Your task to perform on an android device: open chrome privacy settings Image 0: 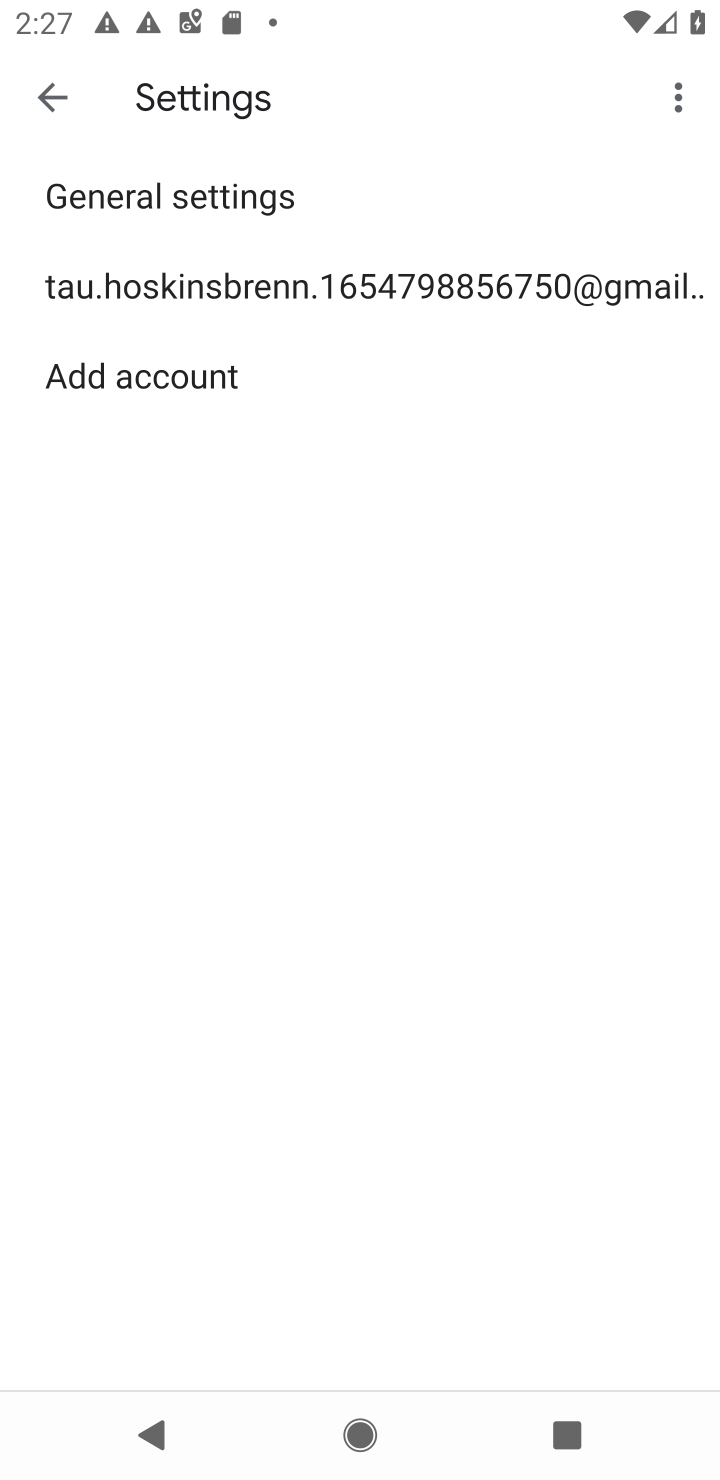
Step 0: press home button
Your task to perform on an android device: open chrome privacy settings Image 1: 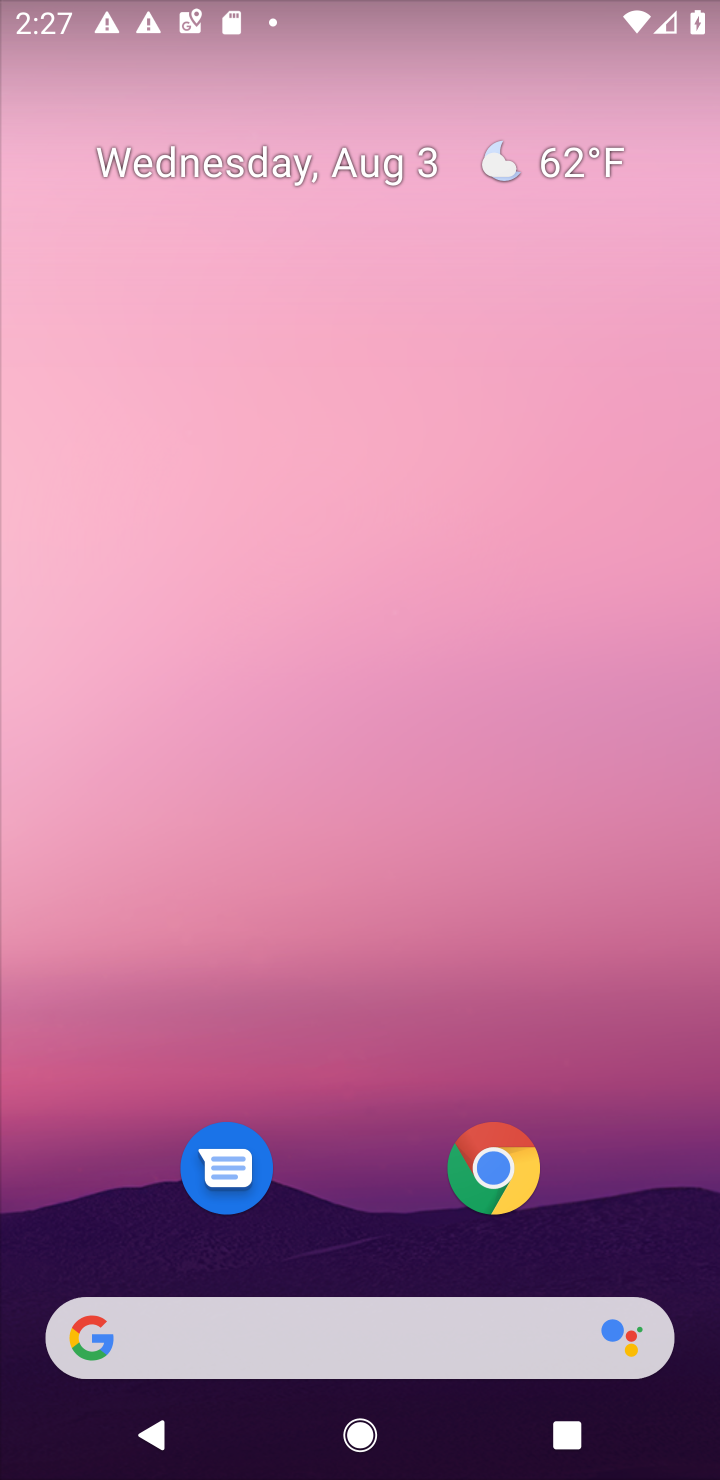
Step 1: click (495, 1169)
Your task to perform on an android device: open chrome privacy settings Image 2: 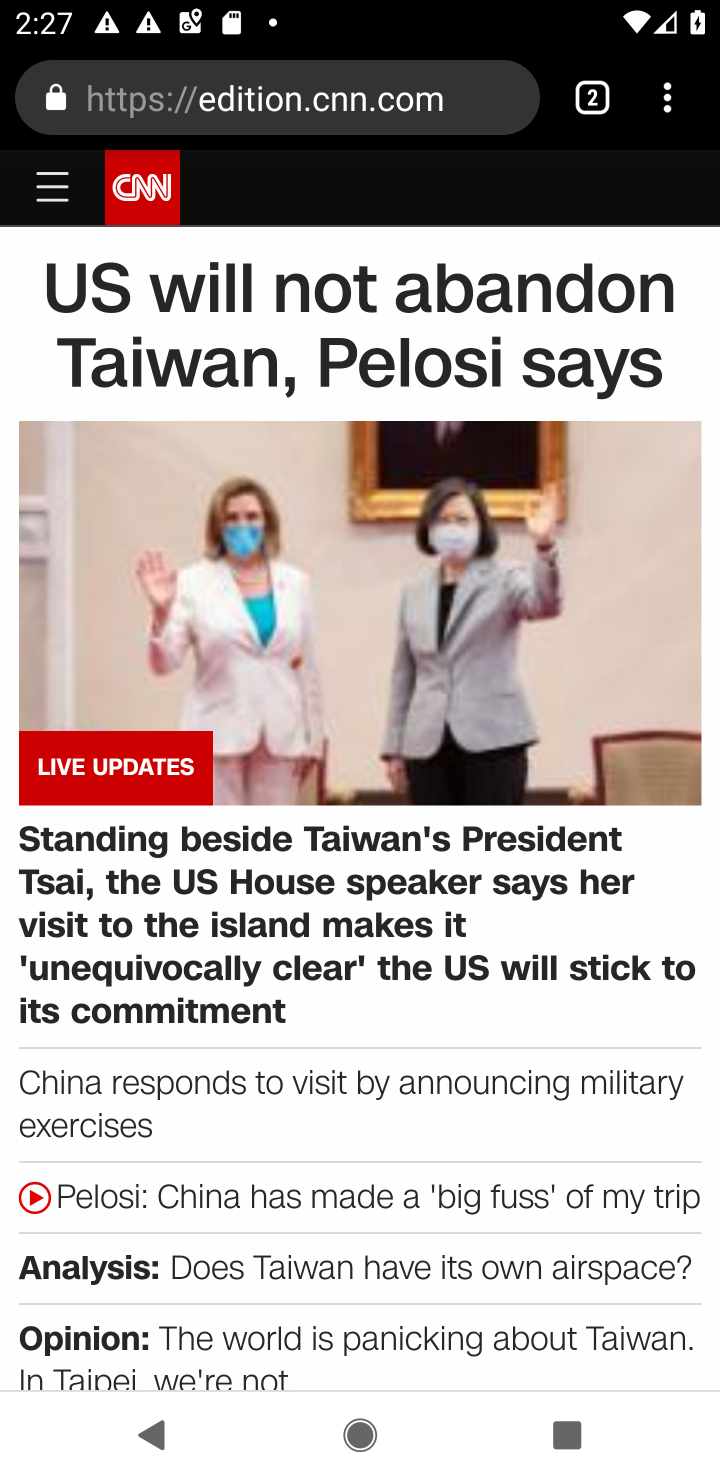
Step 2: click (666, 117)
Your task to perform on an android device: open chrome privacy settings Image 3: 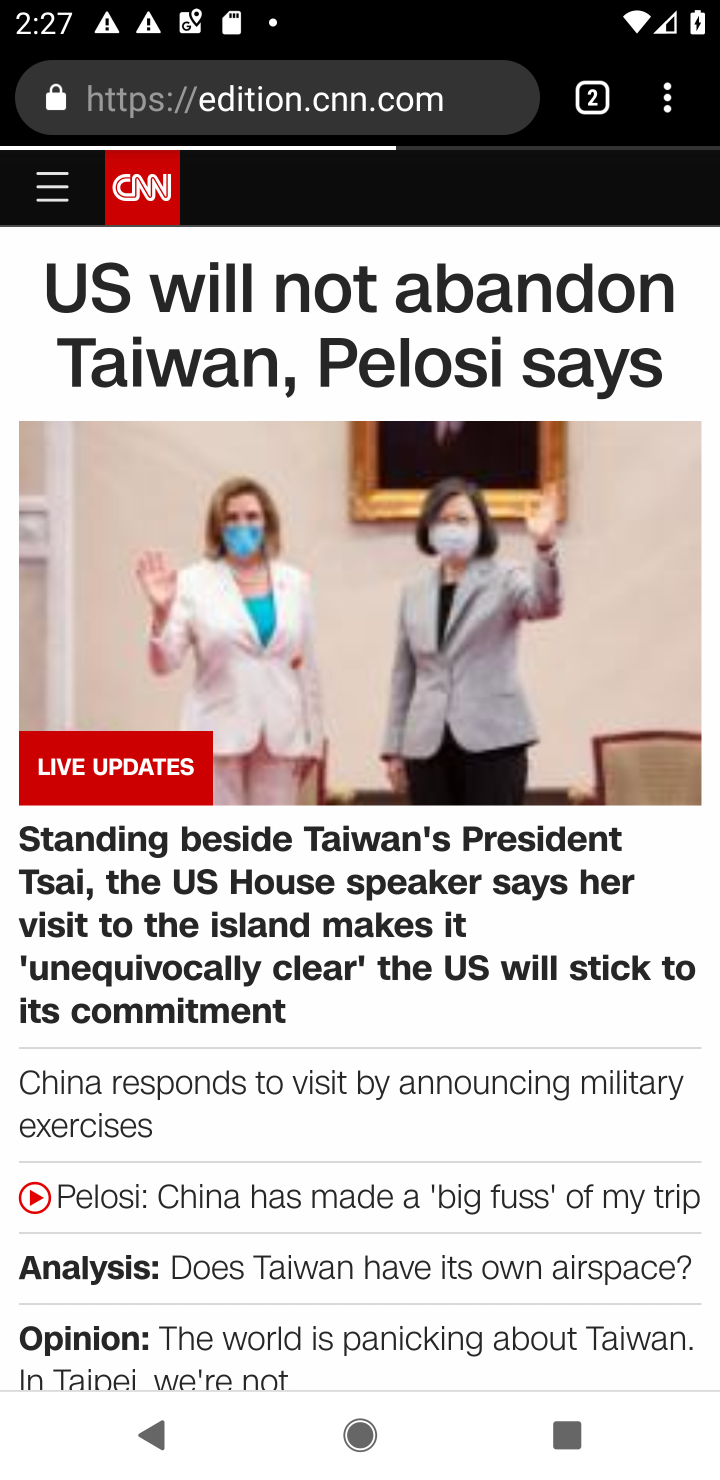
Step 3: click (658, 119)
Your task to perform on an android device: open chrome privacy settings Image 4: 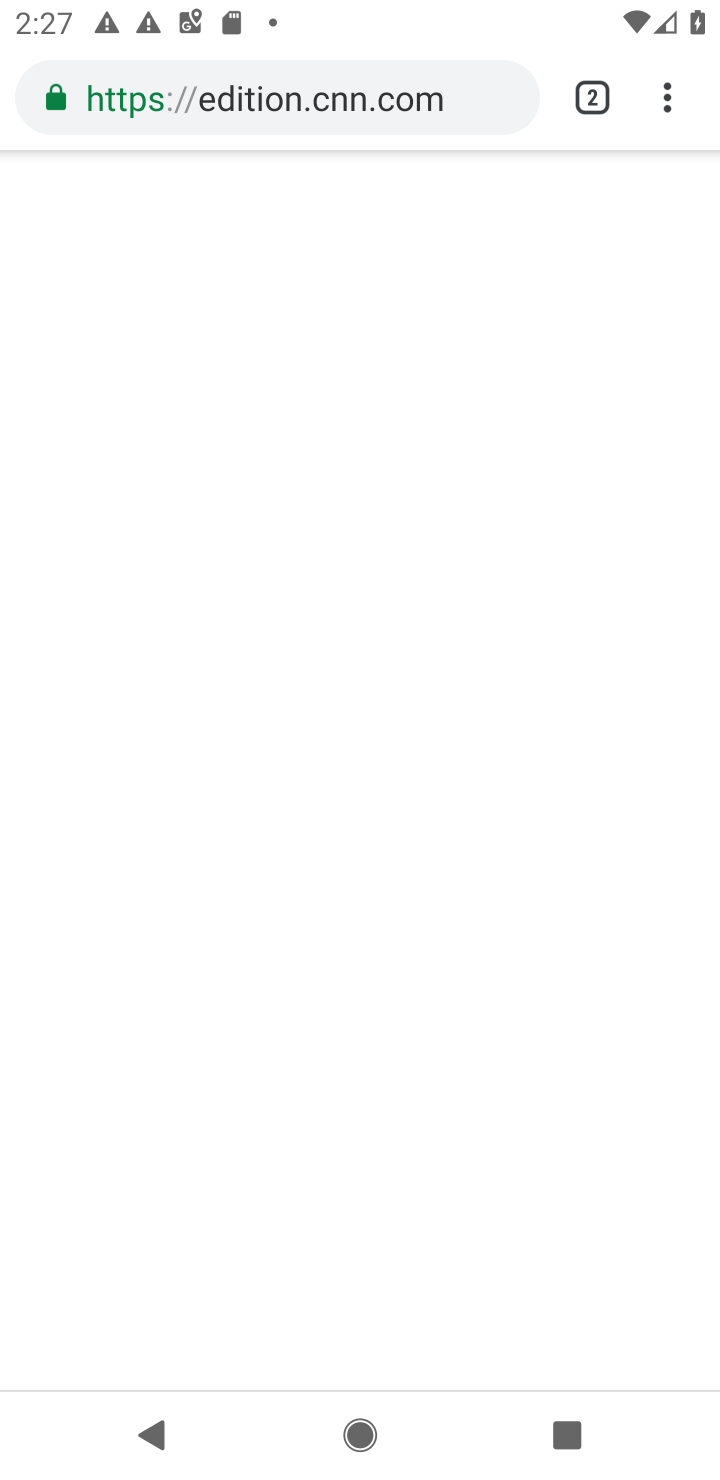
Step 4: click (658, 97)
Your task to perform on an android device: open chrome privacy settings Image 5: 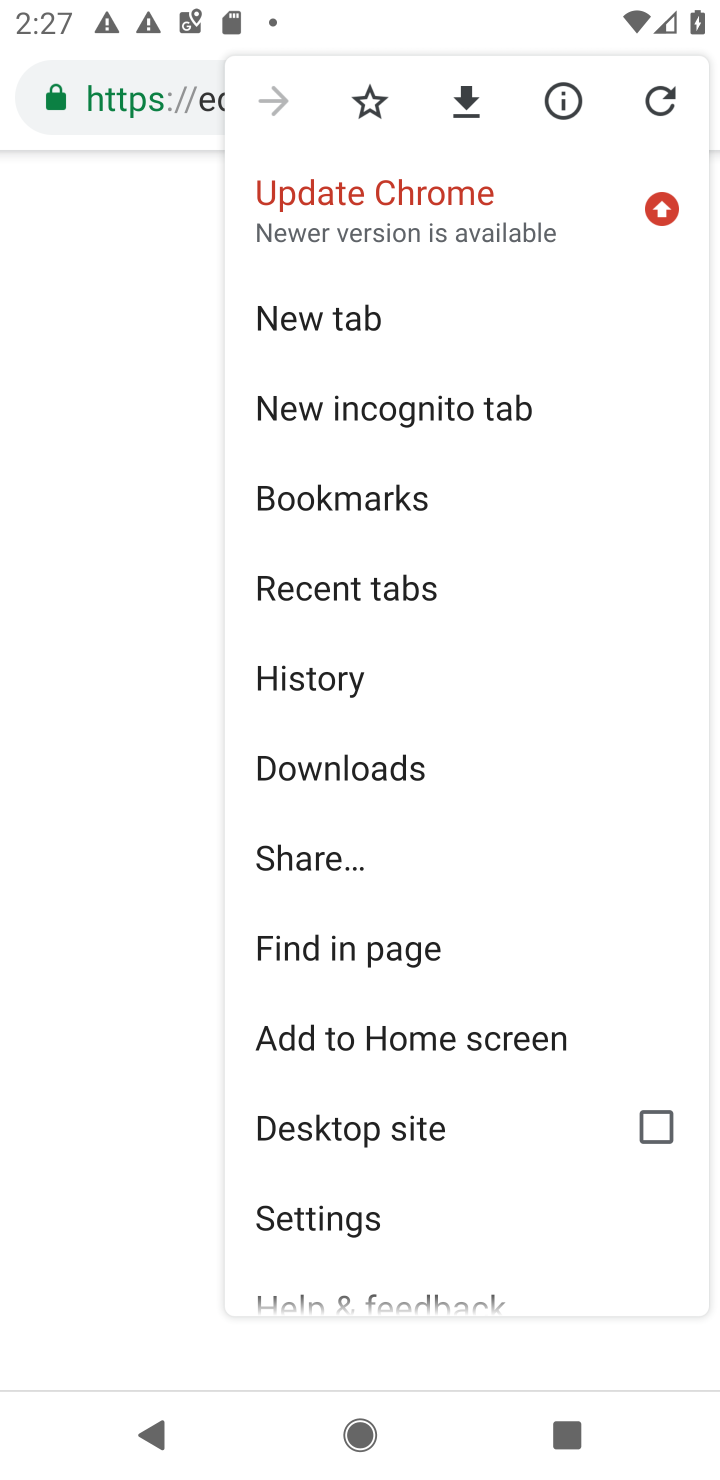
Step 5: click (317, 1222)
Your task to perform on an android device: open chrome privacy settings Image 6: 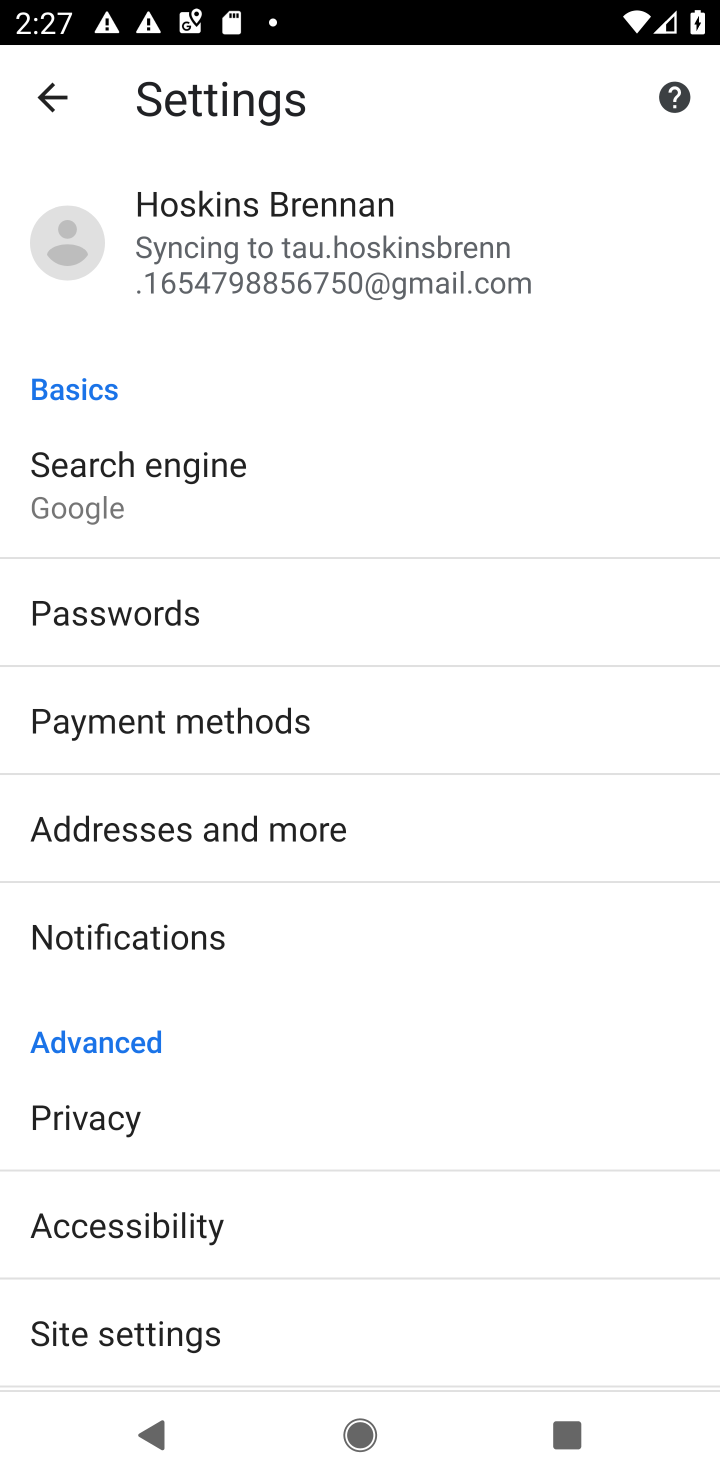
Step 6: click (80, 1112)
Your task to perform on an android device: open chrome privacy settings Image 7: 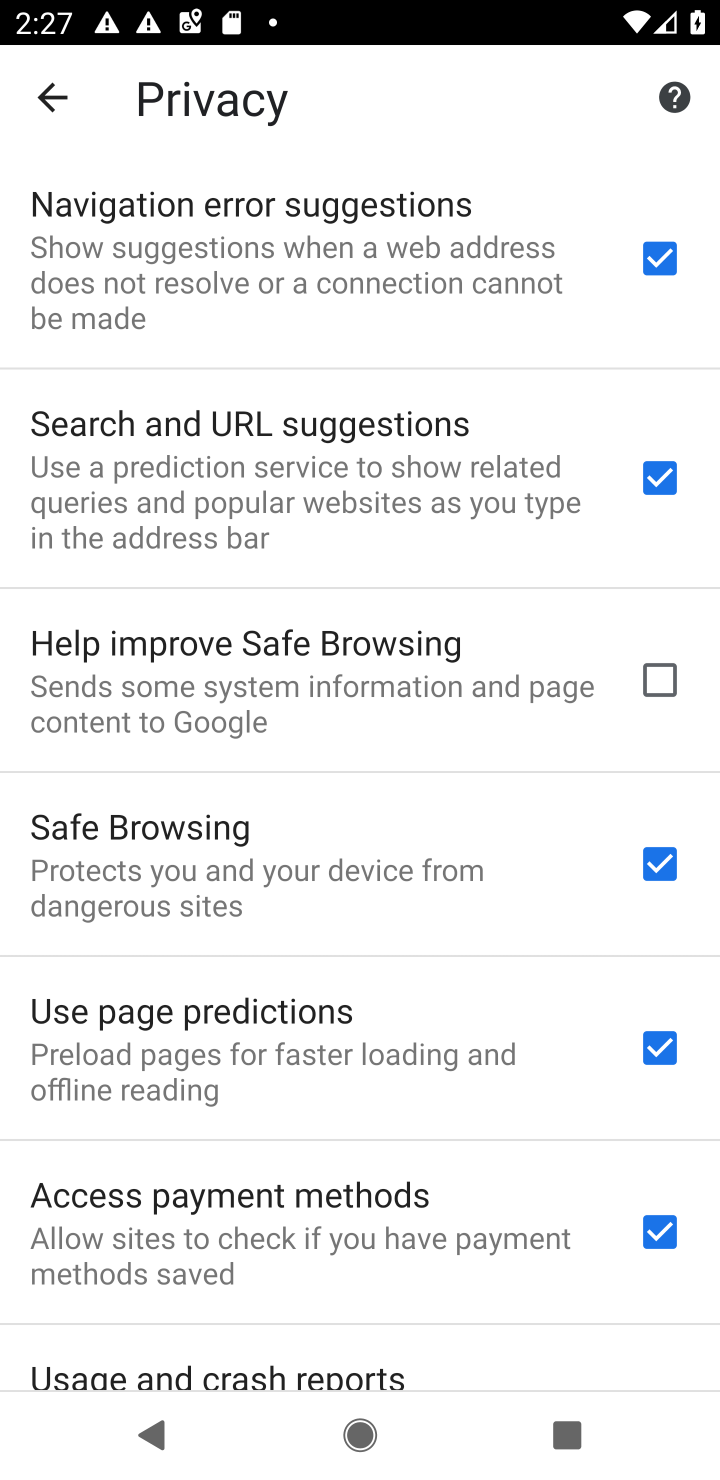
Step 7: task complete